Your task to perform on an android device: clear all cookies in the chrome app Image 0: 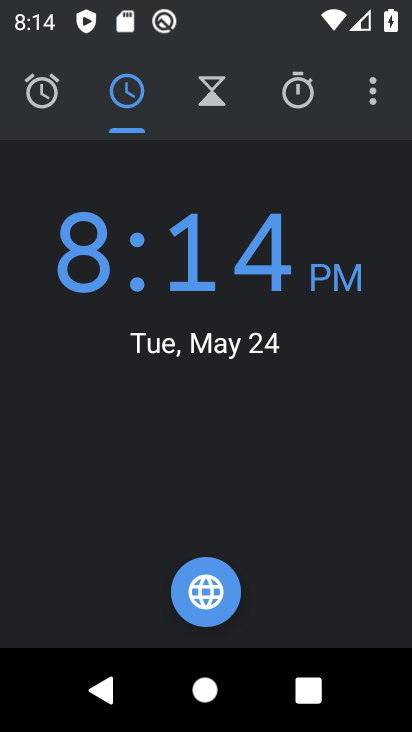
Step 0: press home button
Your task to perform on an android device: clear all cookies in the chrome app Image 1: 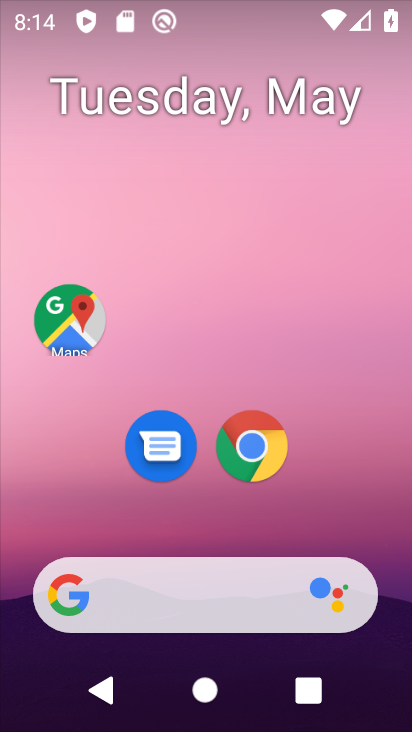
Step 1: drag from (394, 429) to (400, 176)
Your task to perform on an android device: clear all cookies in the chrome app Image 2: 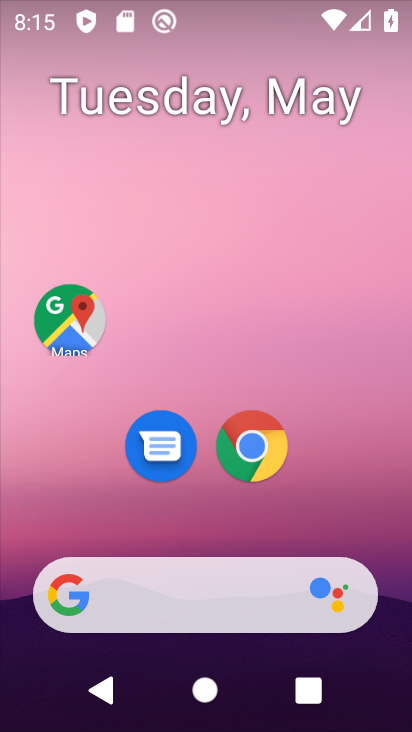
Step 2: drag from (377, 516) to (377, 102)
Your task to perform on an android device: clear all cookies in the chrome app Image 3: 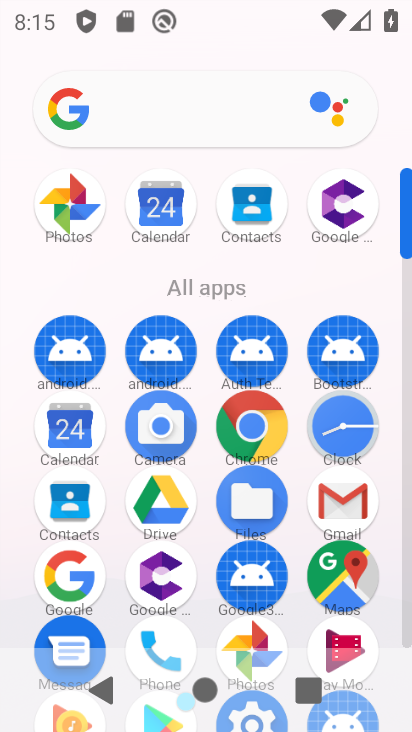
Step 3: click (268, 443)
Your task to perform on an android device: clear all cookies in the chrome app Image 4: 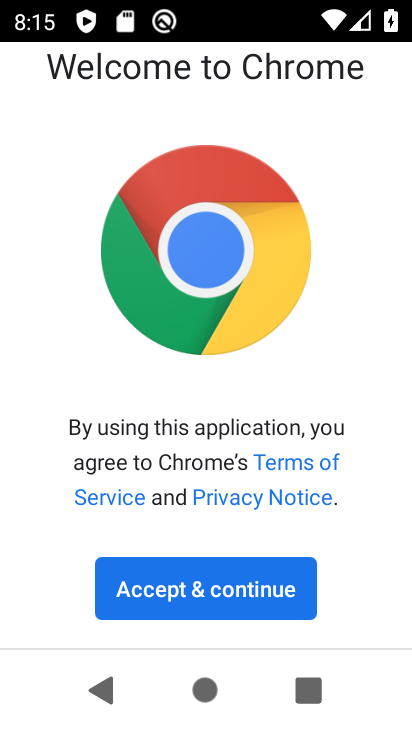
Step 4: click (260, 590)
Your task to perform on an android device: clear all cookies in the chrome app Image 5: 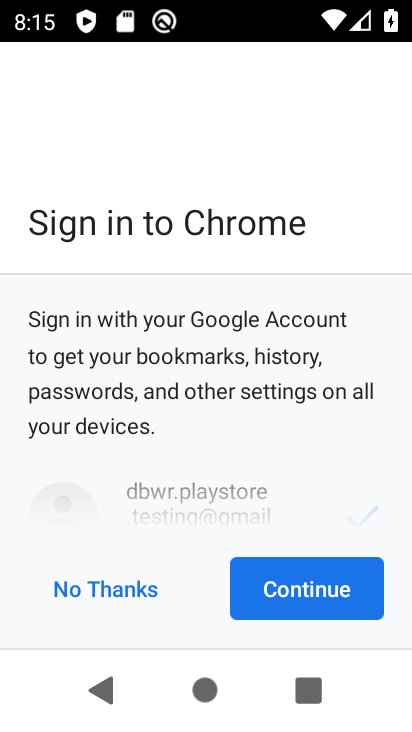
Step 5: click (259, 589)
Your task to perform on an android device: clear all cookies in the chrome app Image 6: 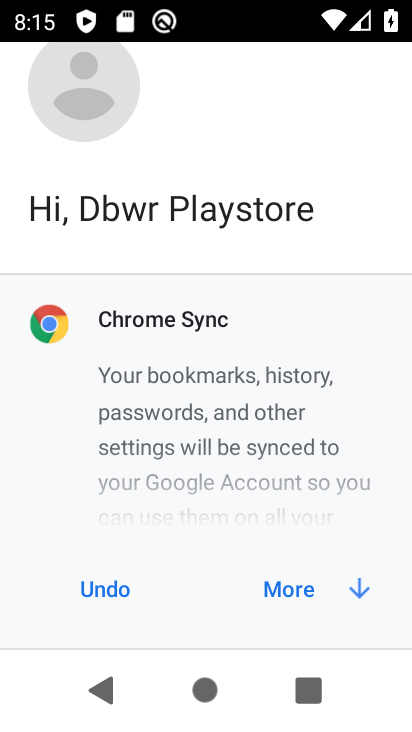
Step 6: click (259, 589)
Your task to perform on an android device: clear all cookies in the chrome app Image 7: 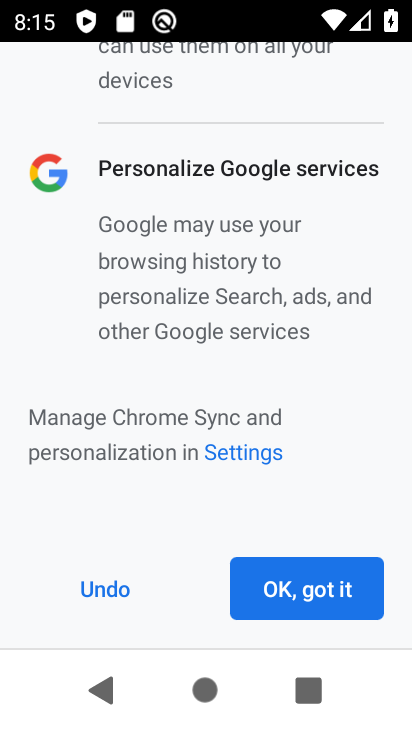
Step 7: click (259, 589)
Your task to perform on an android device: clear all cookies in the chrome app Image 8: 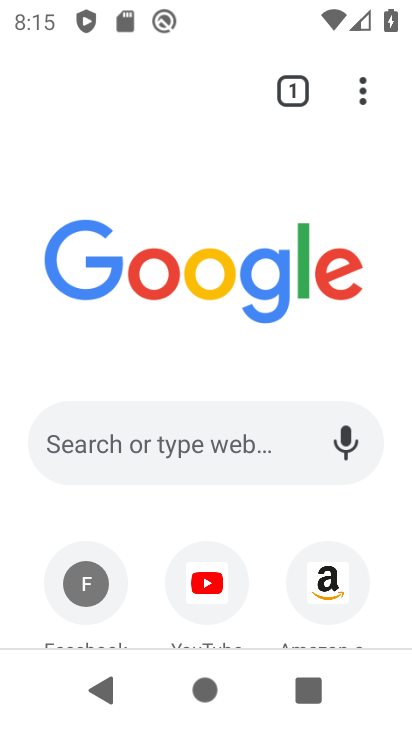
Step 8: click (364, 100)
Your task to perform on an android device: clear all cookies in the chrome app Image 9: 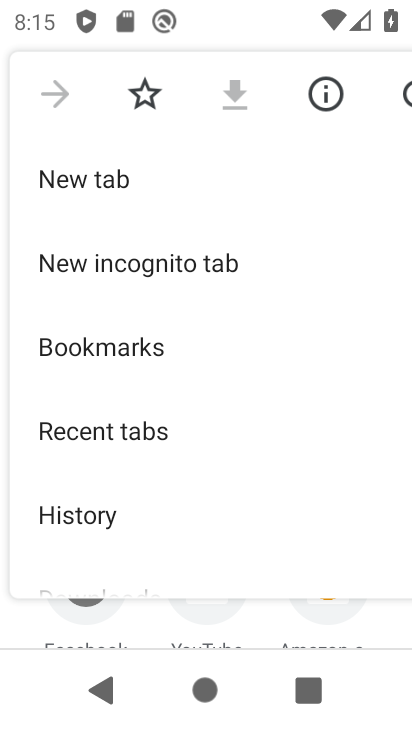
Step 9: drag from (280, 412) to (293, 301)
Your task to perform on an android device: clear all cookies in the chrome app Image 10: 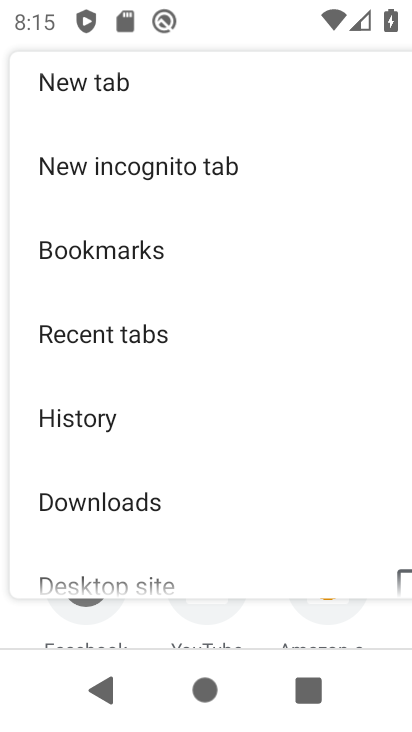
Step 10: drag from (303, 378) to (315, 298)
Your task to perform on an android device: clear all cookies in the chrome app Image 11: 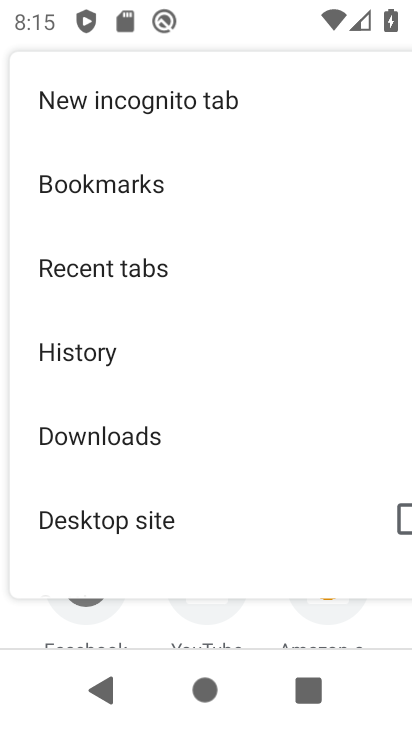
Step 11: drag from (287, 398) to (293, 281)
Your task to perform on an android device: clear all cookies in the chrome app Image 12: 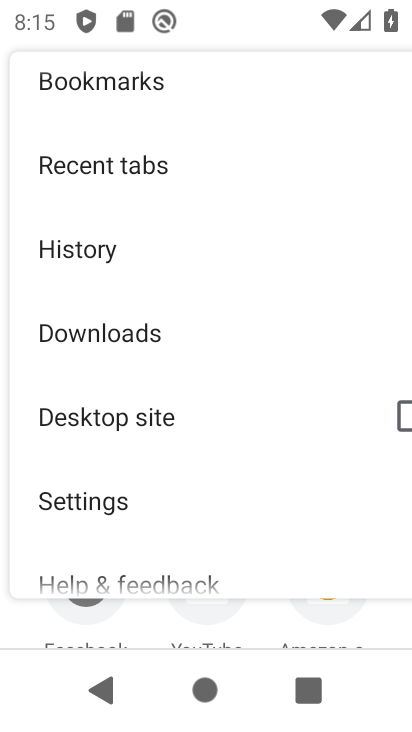
Step 12: drag from (249, 419) to (258, 309)
Your task to perform on an android device: clear all cookies in the chrome app Image 13: 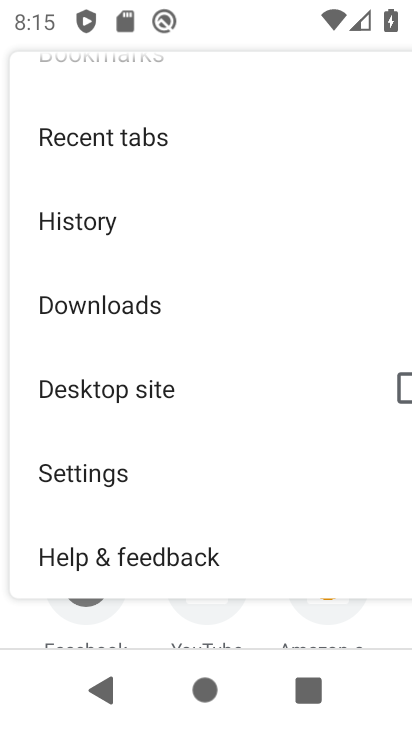
Step 13: click (134, 484)
Your task to perform on an android device: clear all cookies in the chrome app Image 14: 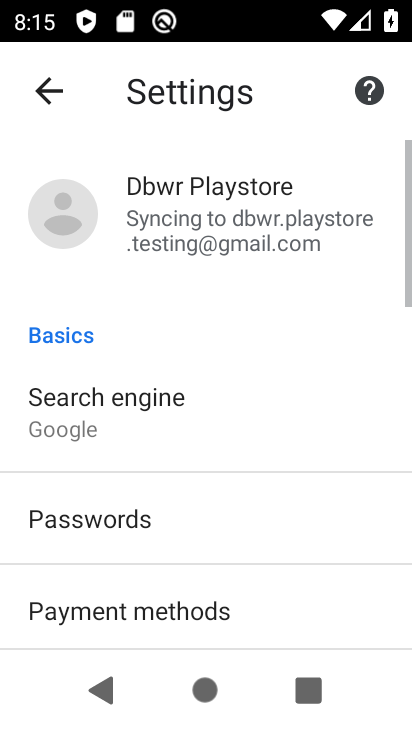
Step 14: drag from (231, 471) to (251, 353)
Your task to perform on an android device: clear all cookies in the chrome app Image 15: 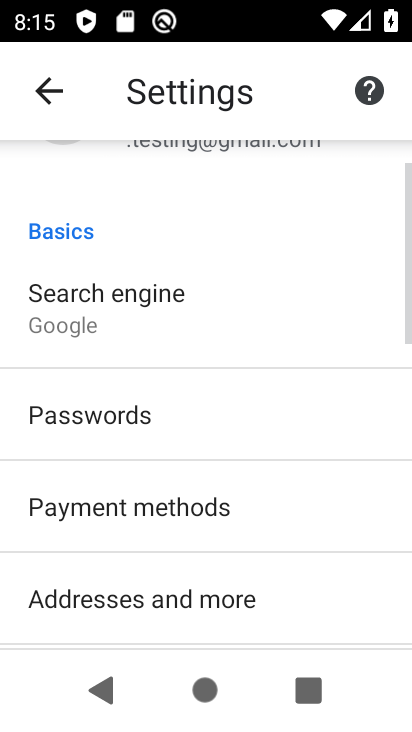
Step 15: drag from (255, 480) to (277, 378)
Your task to perform on an android device: clear all cookies in the chrome app Image 16: 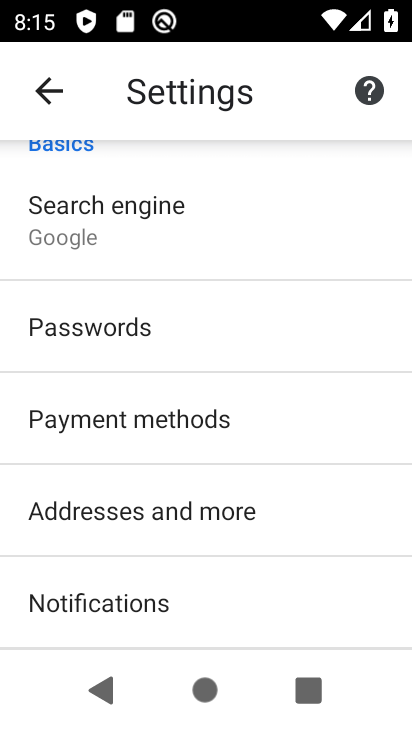
Step 16: drag from (293, 487) to (315, 401)
Your task to perform on an android device: clear all cookies in the chrome app Image 17: 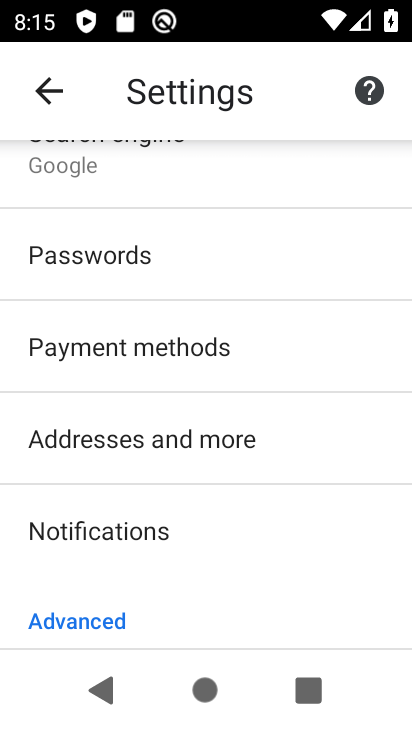
Step 17: drag from (296, 533) to (291, 413)
Your task to perform on an android device: clear all cookies in the chrome app Image 18: 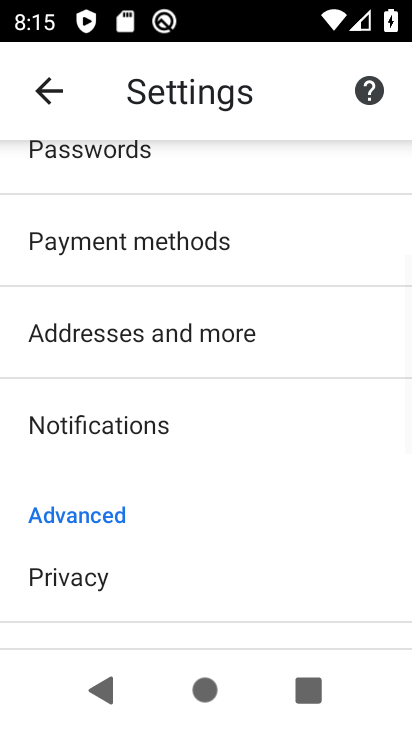
Step 18: drag from (276, 526) to (295, 414)
Your task to perform on an android device: clear all cookies in the chrome app Image 19: 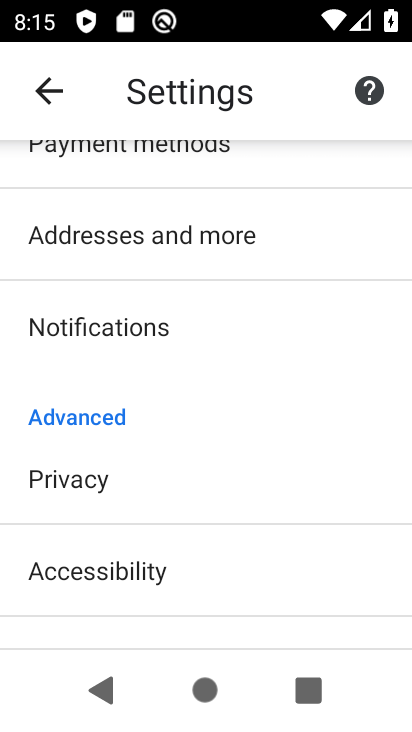
Step 19: drag from (300, 539) to (329, 426)
Your task to perform on an android device: clear all cookies in the chrome app Image 20: 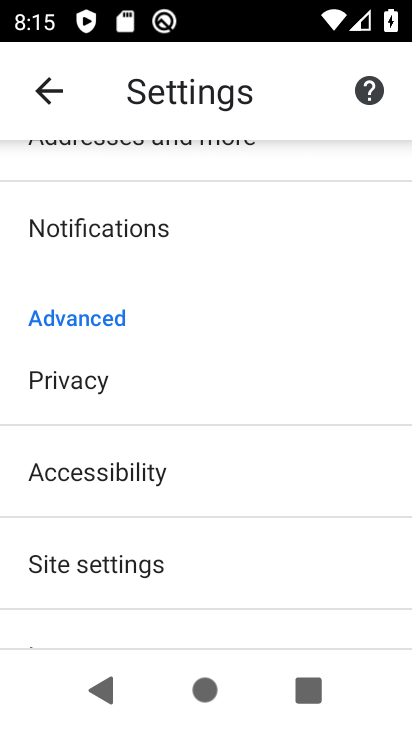
Step 20: drag from (309, 560) to (305, 467)
Your task to perform on an android device: clear all cookies in the chrome app Image 21: 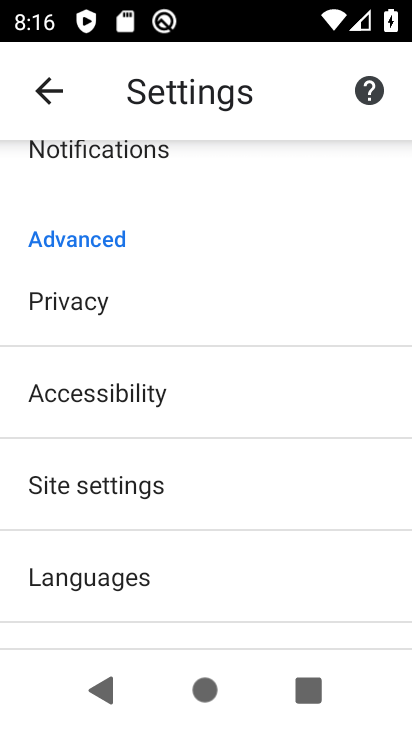
Step 21: click (171, 319)
Your task to perform on an android device: clear all cookies in the chrome app Image 22: 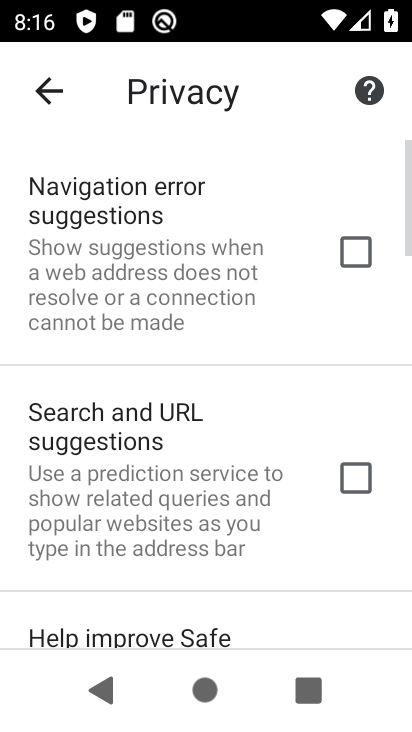
Step 22: drag from (232, 485) to (257, 371)
Your task to perform on an android device: clear all cookies in the chrome app Image 23: 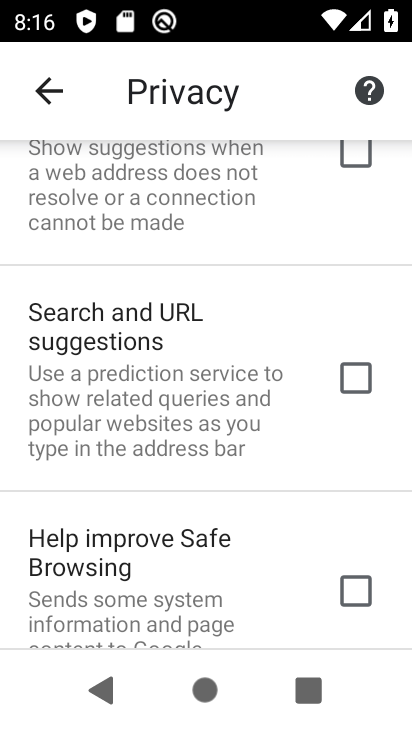
Step 23: drag from (276, 537) to (300, 436)
Your task to perform on an android device: clear all cookies in the chrome app Image 24: 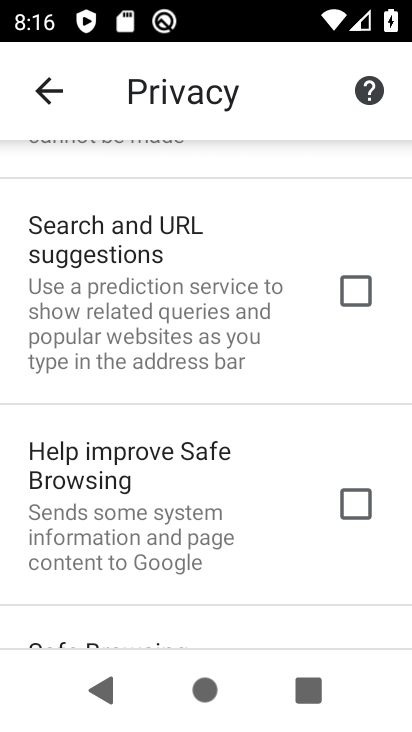
Step 24: drag from (270, 551) to (283, 448)
Your task to perform on an android device: clear all cookies in the chrome app Image 25: 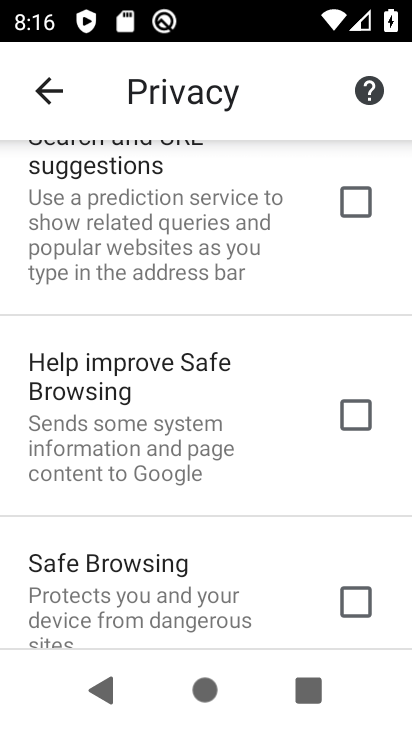
Step 25: drag from (259, 562) to (282, 447)
Your task to perform on an android device: clear all cookies in the chrome app Image 26: 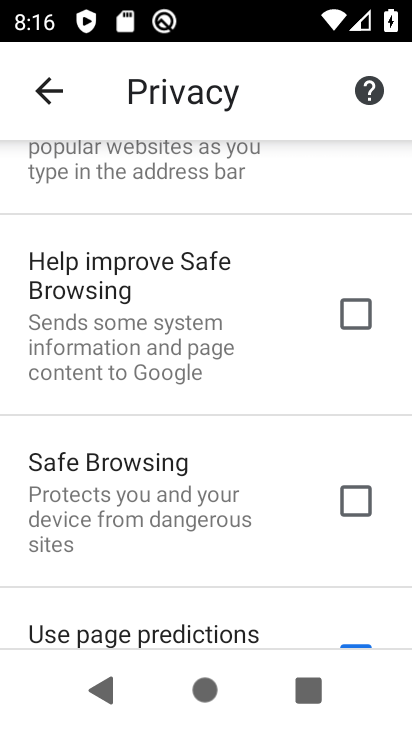
Step 26: drag from (281, 593) to (304, 474)
Your task to perform on an android device: clear all cookies in the chrome app Image 27: 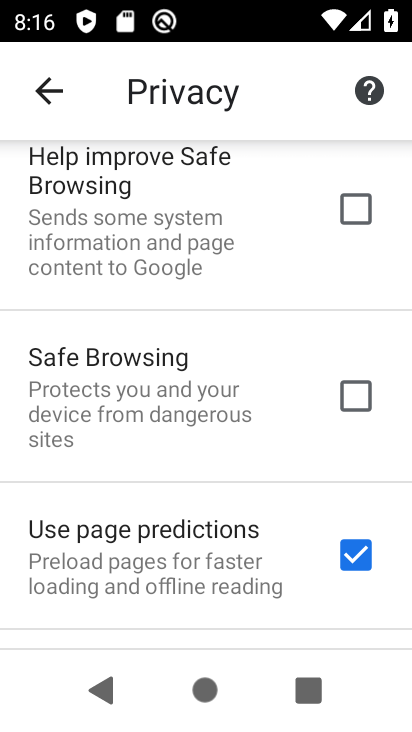
Step 27: drag from (311, 597) to (299, 472)
Your task to perform on an android device: clear all cookies in the chrome app Image 28: 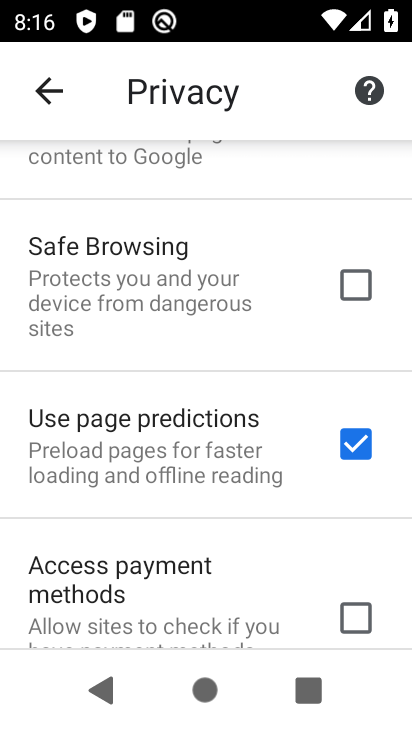
Step 28: drag from (302, 520) to (296, 370)
Your task to perform on an android device: clear all cookies in the chrome app Image 29: 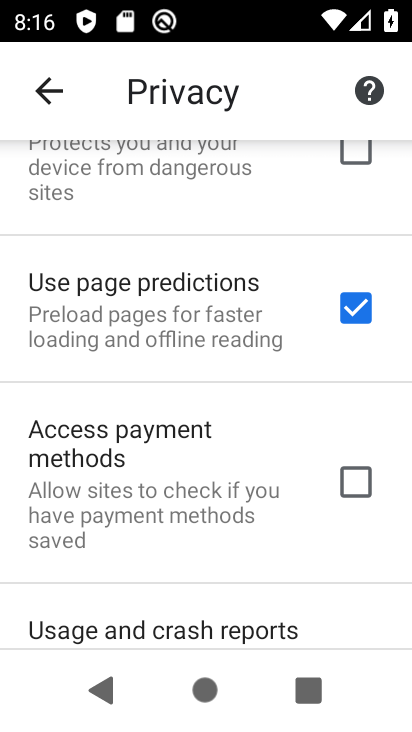
Step 29: drag from (311, 550) to (326, 441)
Your task to perform on an android device: clear all cookies in the chrome app Image 30: 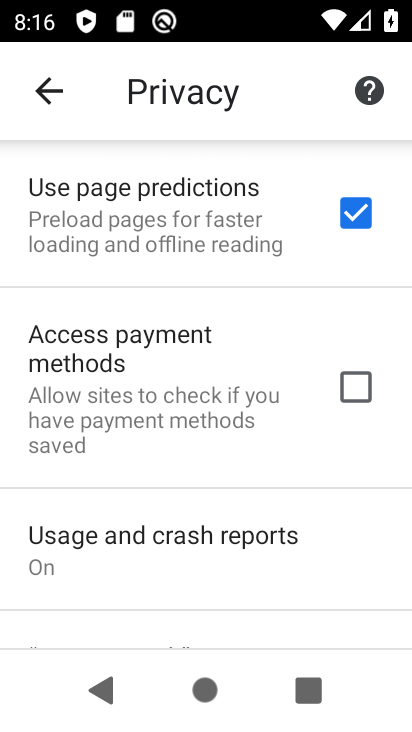
Step 30: drag from (302, 608) to (304, 462)
Your task to perform on an android device: clear all cookies in the chrome app Image 31: 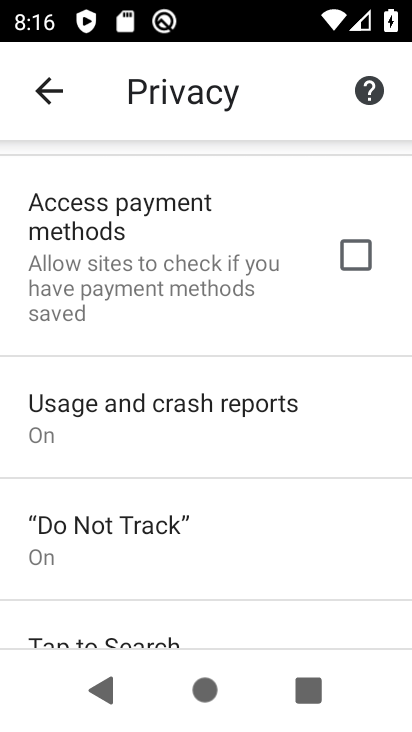
Step 31: drag from (295, 594) to (311, 447)
Your task to perform on an android device: clear all cookies in the chrome app Image 32: 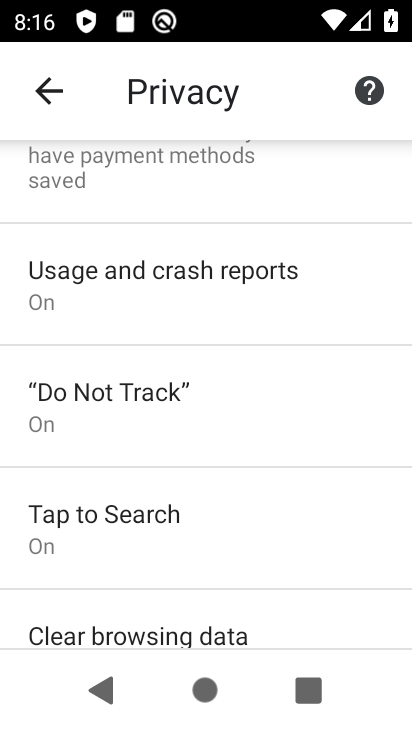
Step 32: drag from (301, 611) to (314, 470)
Your task to perform on an android device: clear all cookies in the chrome app Image 33: 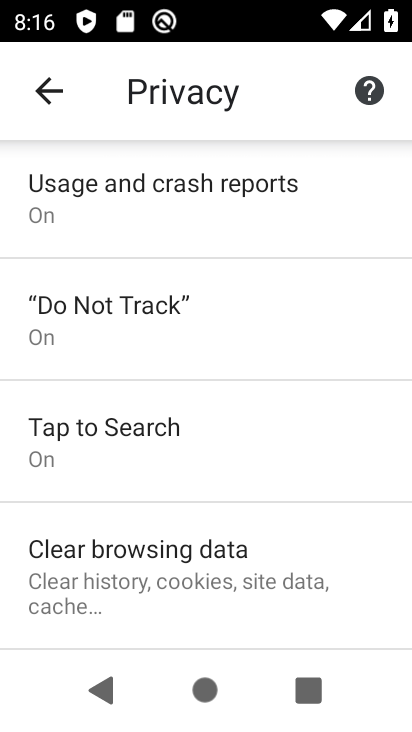
Step 33: click (255, 592)
Your task to perform on an android device: clear all cookies in the chrome app Image 34: 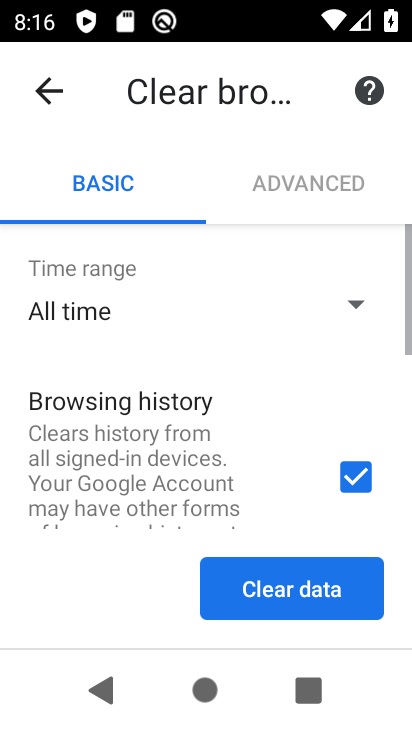
Step 34: click (254, 593)
Your task to perform on an android device: clear all cookies in the chrome app Image 35: 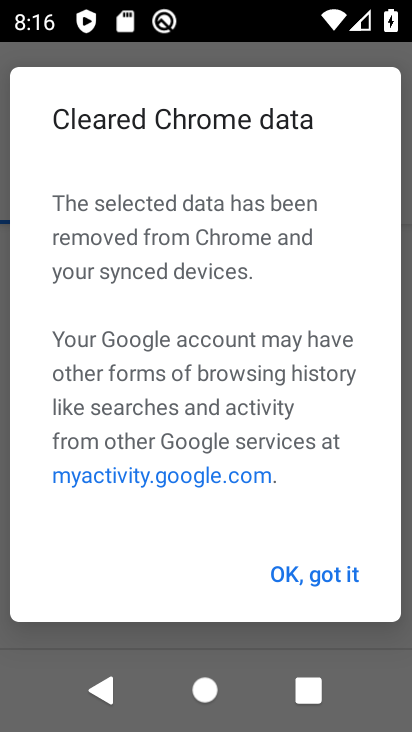
Step 35: click (324, 589)
Your task to perform on an android device: clear all cookies in the chrome app Image 36: 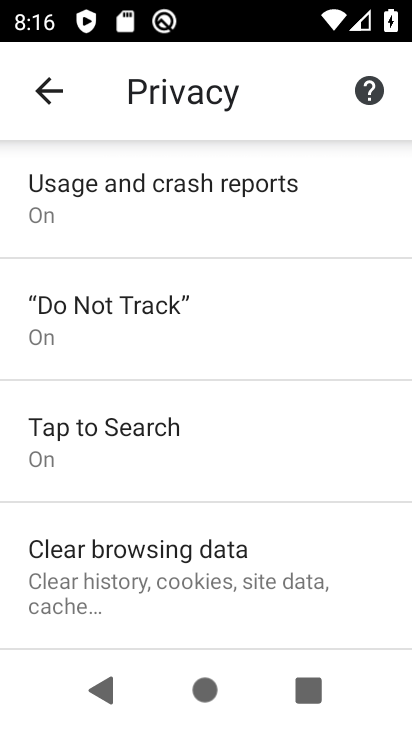
Step 36: task complete